Your task to perform on an android device: change the clock style Image 0: 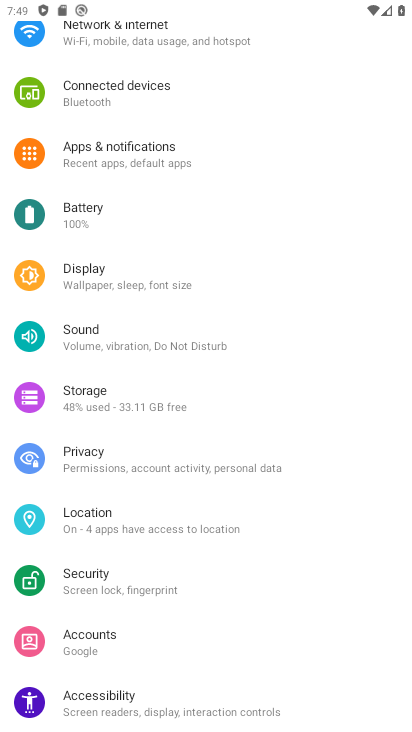
Step 0: press back button
Your task to perform on an android device: change the clock style Image 1: 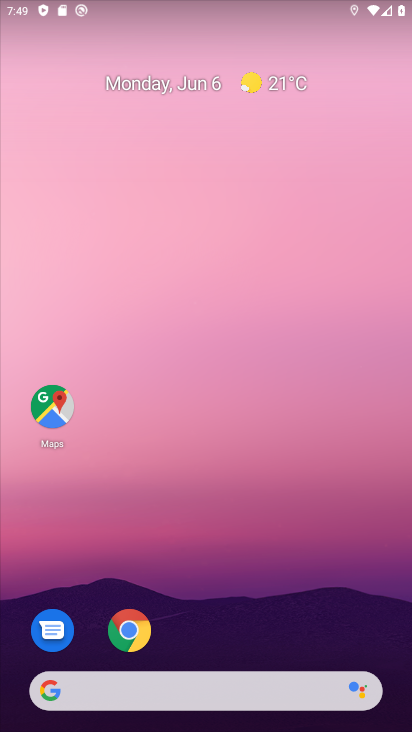
Step 1: drag from (256, 604) to (189, 48)
Your task to perform on an android device: change the clock style Image 2: 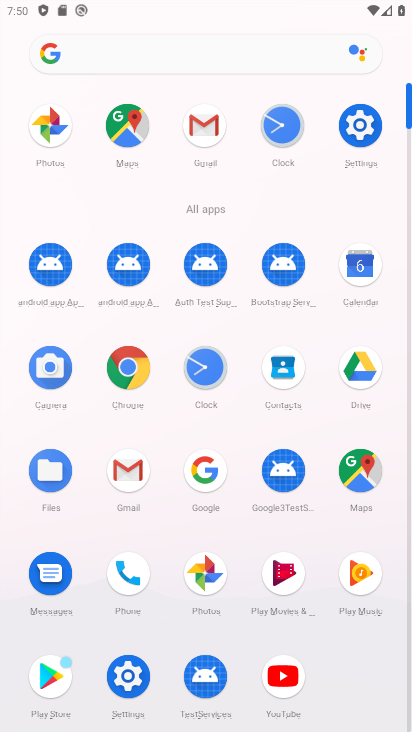
Step 2: click (204, 367)
Your task to perform on an android device: change the clock style Image 3: 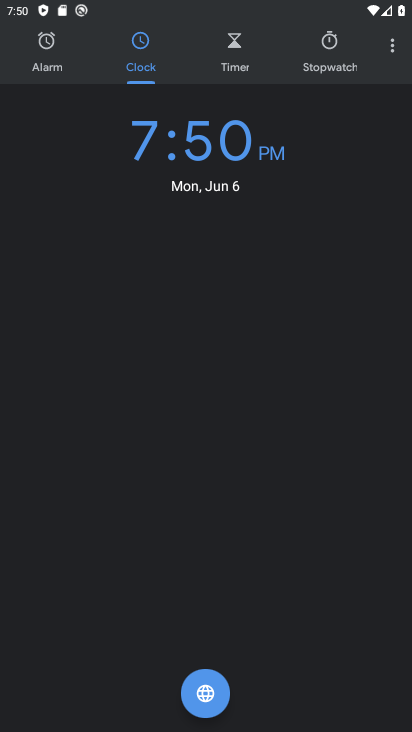
Step 3: click (393, 47)
Your task to perform on an android device: change the clock style Image 4: 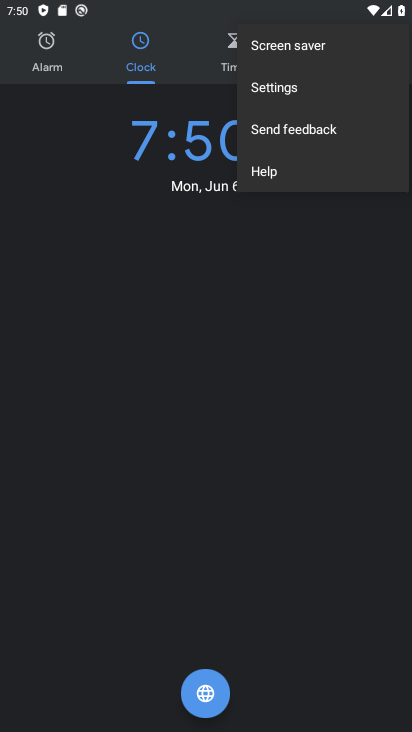
Step 4: click (293, 88)
Your task to perform on an android device: change the clock style Image 5: 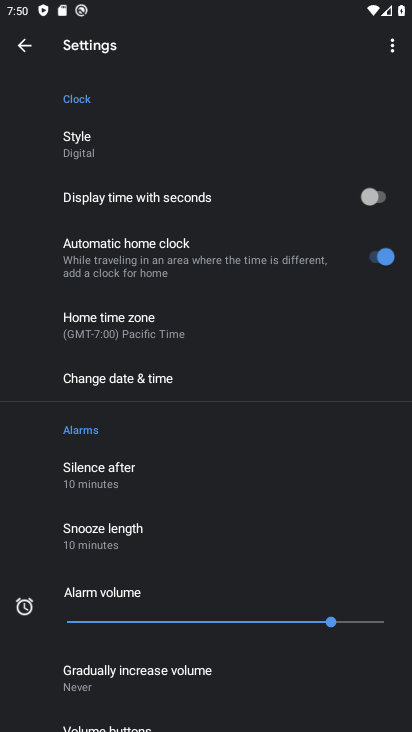
Step 5: click (92, 142)
Your task to perform on an android device: change the clock style Image 6: 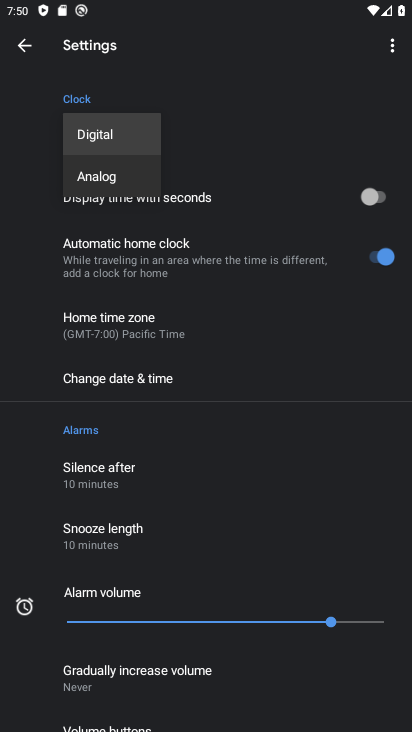
Step 6: click (104, 177)
Your task to perform on an android device: change the clock style Image 7: 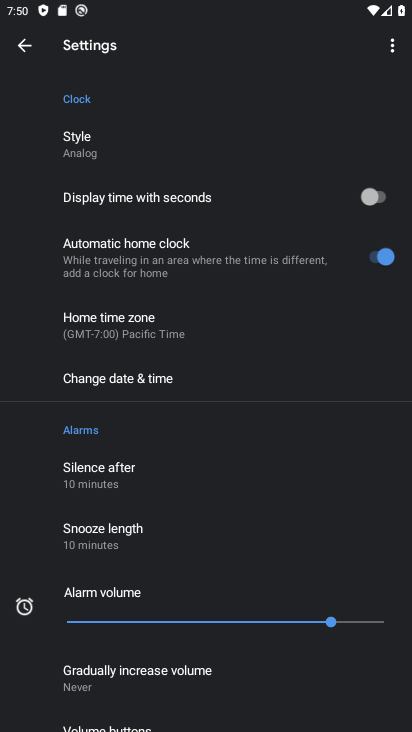
Step 7: task complete